Your task to perform on an android device: turn notification dots on Image 0: 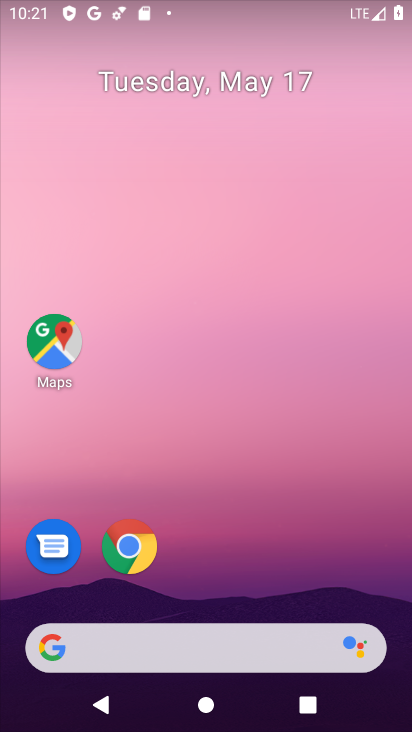
Step 0: drag from (219, 588) to (304, 18)
Your task to perform on an android device: turn notification dots on Image 1: 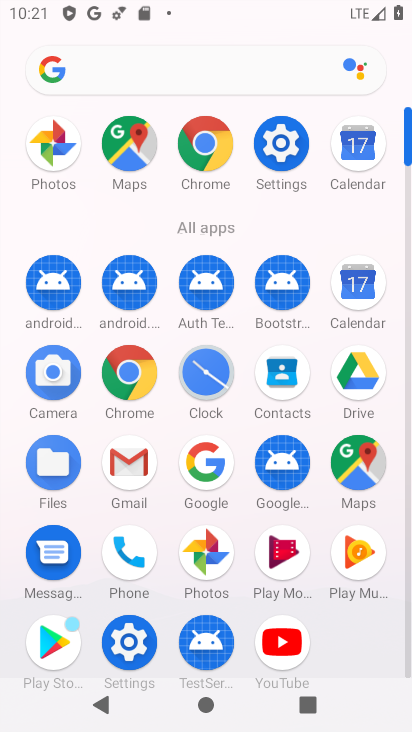
Step 1: click (282, 174)
Your task to perform on an android device: turn notification dots on Image 2: 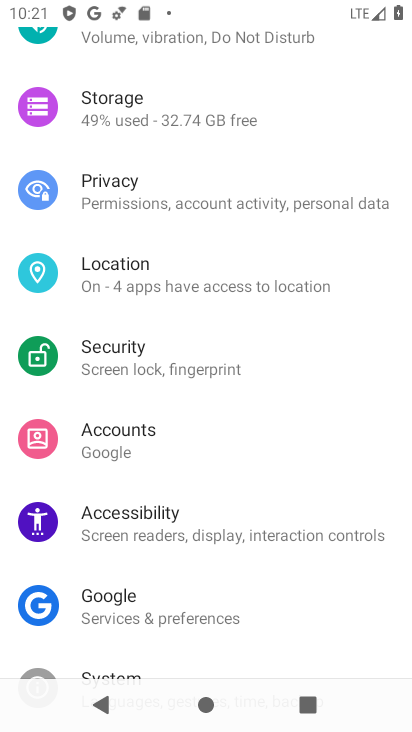
Step 2: drag from (269, 230) to (260, 397)
Your task to perform on an android device: turn notification dots on Image 3: 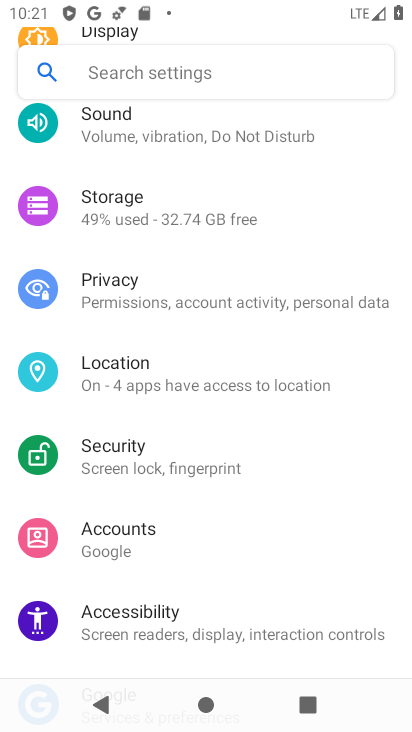
Step 3: drag from (235, 217) to (221, 487)
Your task to perform on an android device: turn notification dots on Image 4: 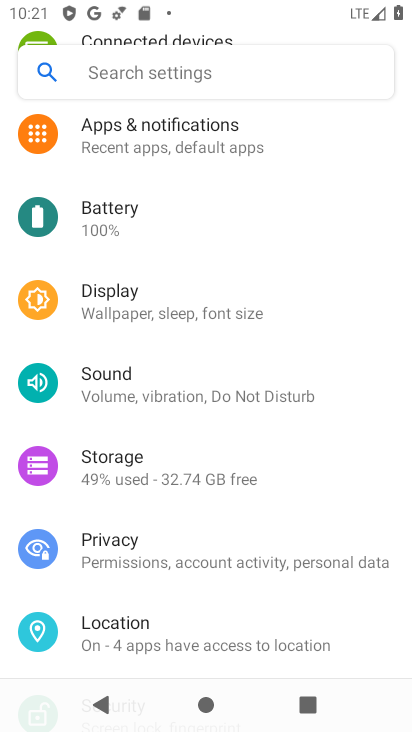
Step 4: drag from (270, 219) to (253, 397)
Your task to perform on an android device: turn notification dots on Image 5: 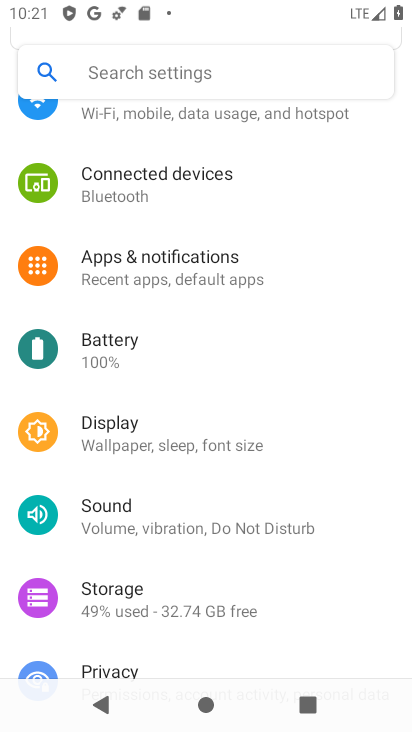
Step 5: click (209, 279)
Your task to perform on an android device: turn notification dots on Image 6: 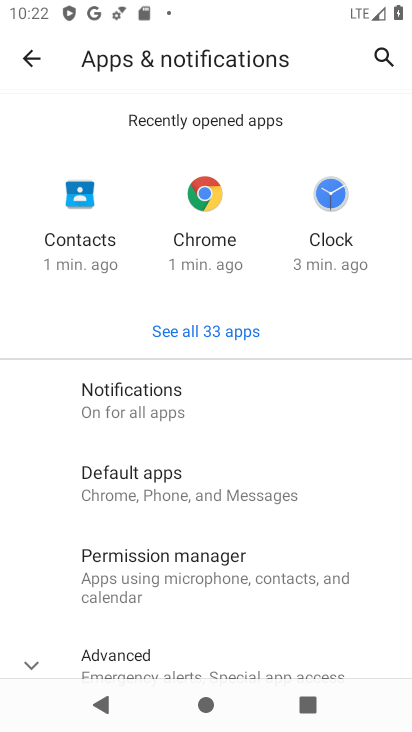
Step 6: click (158, 399)
Your task to perform on an android device: turn notification dots on Image 7: 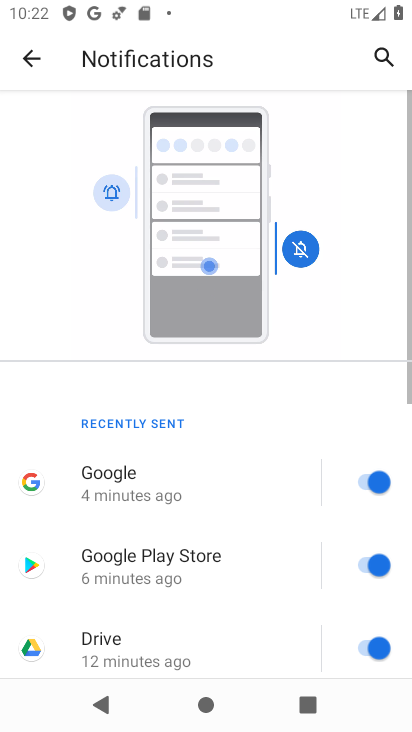
Step 7: drag from (189, 534) to (249, 209)
Your task to perform on an android device: turn notification dots on Image 8: 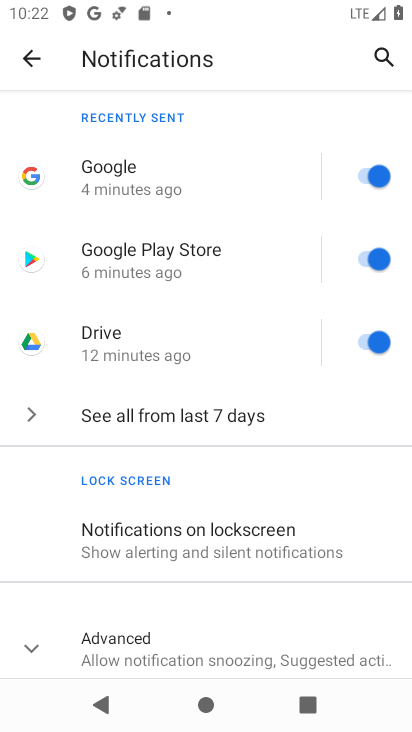
Step 8: click (242, 545)
Your task to perform on an android device: turn notification dots on Image 9: 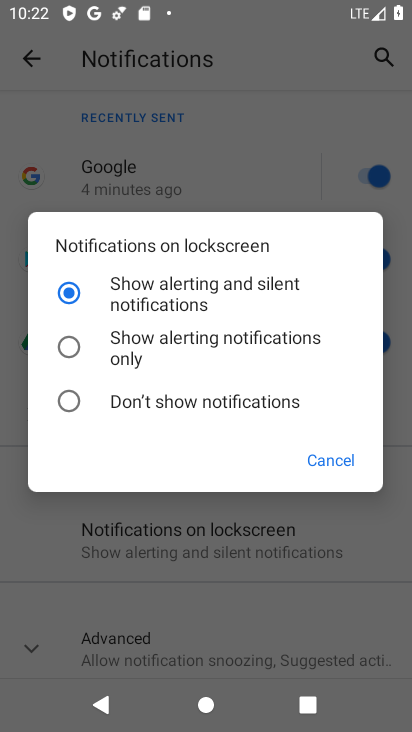
Step 9: click (312, 456)
Your task to perform on an android device: turn notification dots on Image 10: 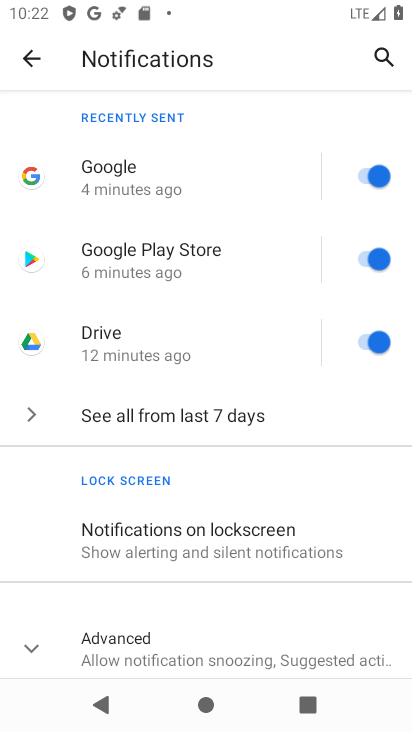
Step 10: click (143, 655)
Your task to perform on an android device: turn notification dots on Image 11: 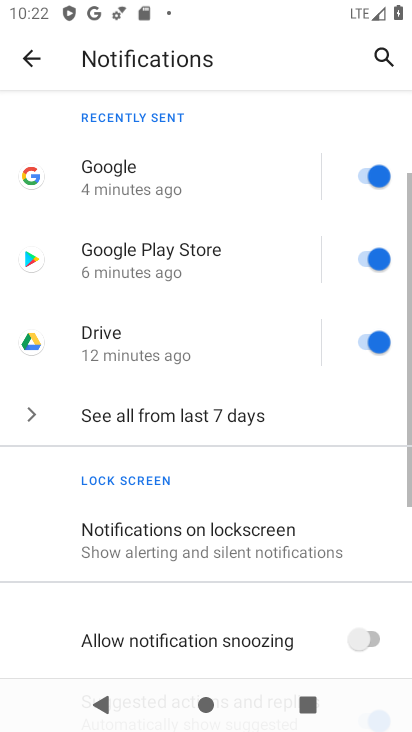
Step 11: task complete